Your task to perform on an android device: Open Google Image 0: 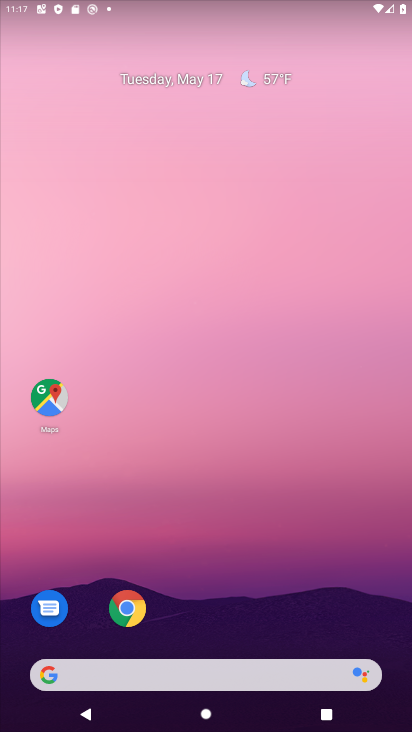
Step 0: click (37, 675)
Your task to perform on an android device: Open Google Image 1: 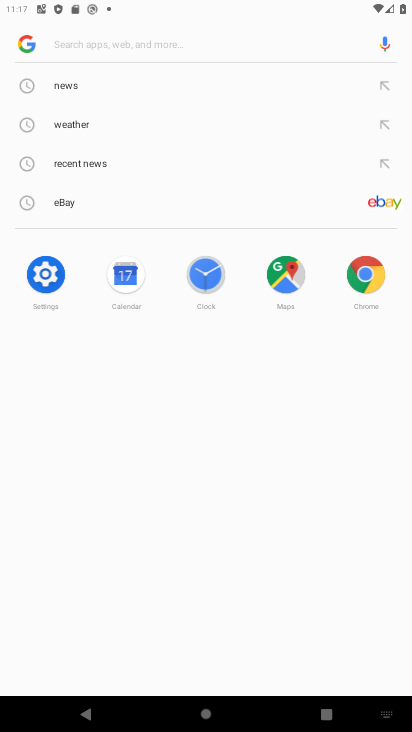
Step 1: click (31, 41)
Your task to perform on an android device: Open Google Image 2: 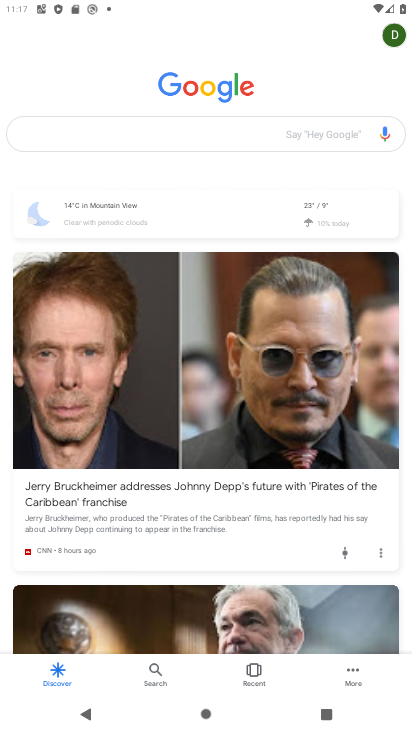
Step 2: click (168, 118)
Your task to perform on an android device: Open Google Image 3: 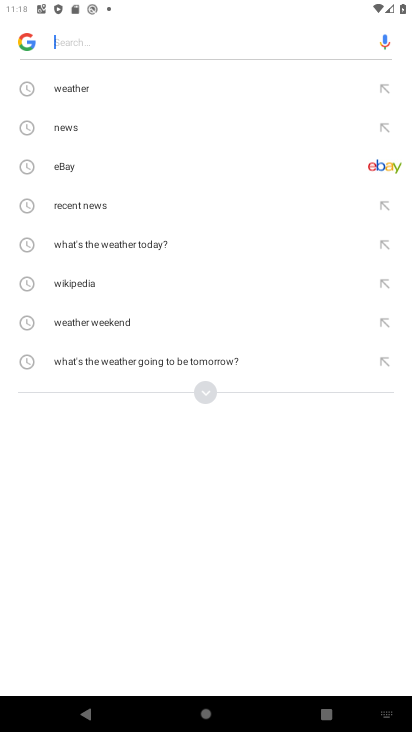
Step 3: task complete